Your task to perform on an android device: turn vacation reply on in the gmail app Image 0: 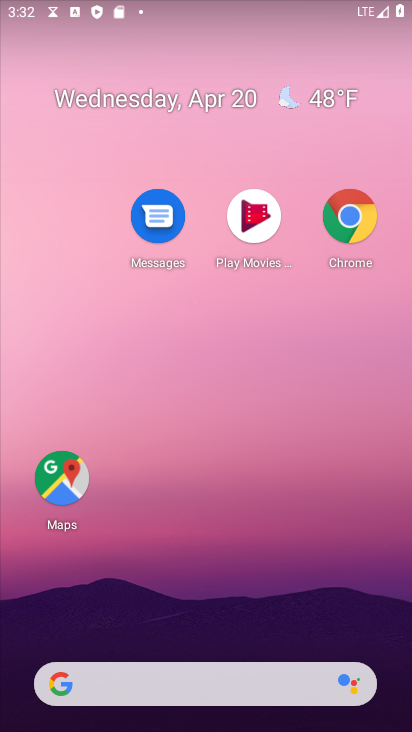
Step 0: drag from (273, 605) to (261, 118)
Your task to perform on an android device: turn vacation reply on in the gmail app Image 1: 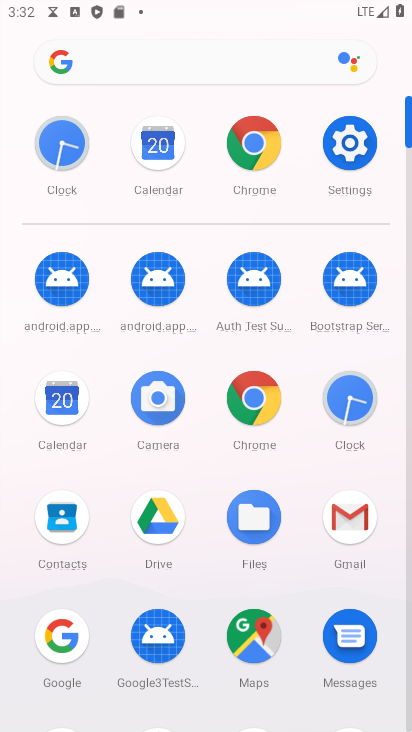
Step 1: click (352, 525)
Your task to perform on an android device: turn vacation reply on in the gmail app Image 2: 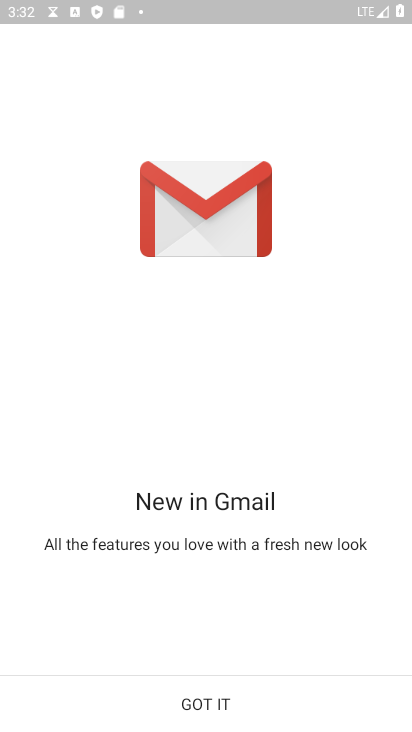
Step 2: click (232, 710)
Your task to perform on an android device: turn vacation reply on in the gmail app Image 3: 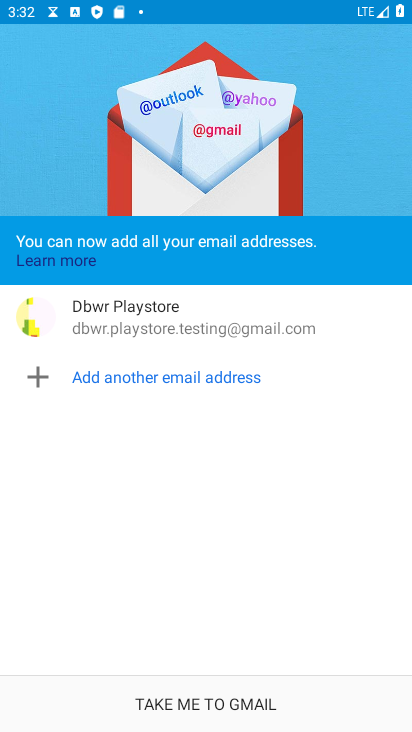
Step 3: click (232, 703)
Your task to perform on an android device: turn vacation reply on in the gmail app Image 4: 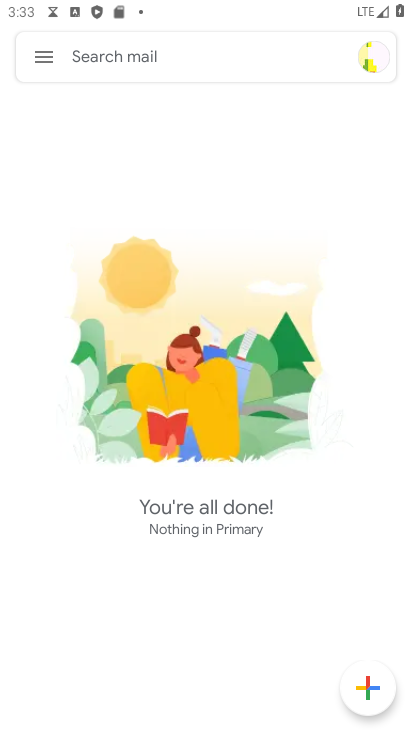
Step 4: click (40, 73)
Your task to perform on an android device: turn vacation reply on in the gmail app Image 5: 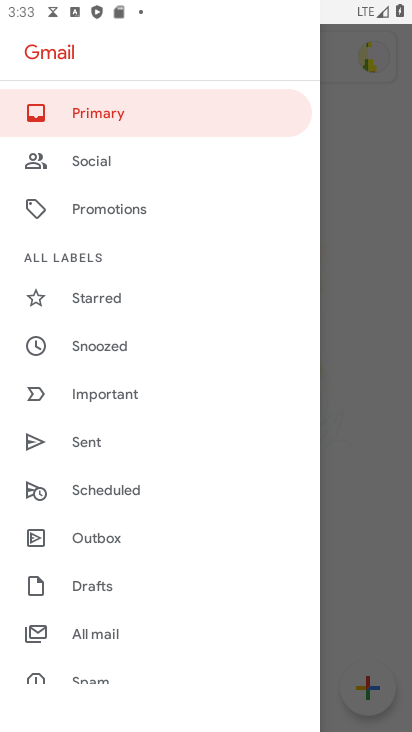
Step 5: drag from (134, 604) to (167, 415)
Your task to perform on an android device: turn vacation reply on in the gmail app Image 6: 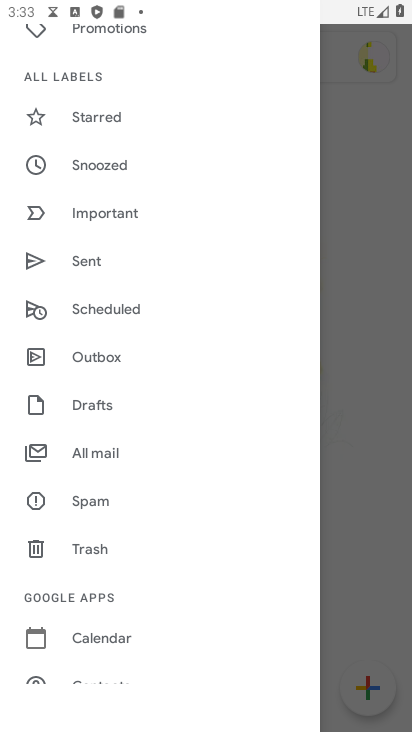
Step 6: drag from (139, 624) to (153, 332)
Your task to perform on an android device: turn vacation reply on in the gmail app Image 7: 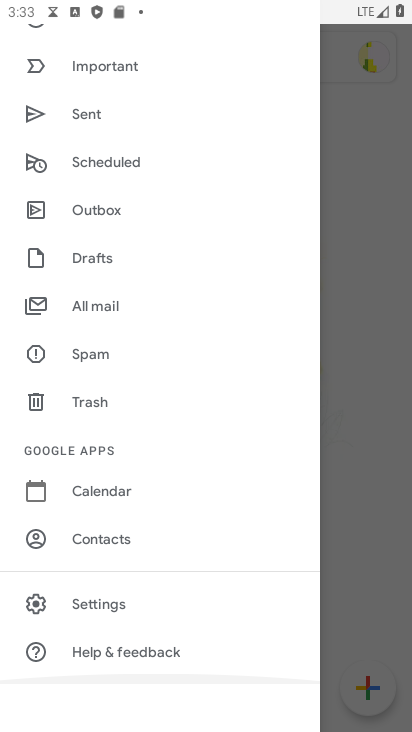
Step 7: click (117, 611)
Your task to perform on an android device: turn vacation reply on in the gmail app Image 8: 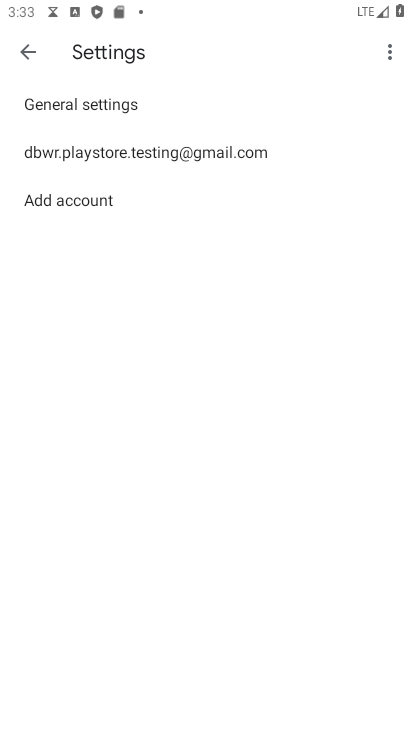
Step 8: click (196, 158)
Your task to perform on an android device: turn vacation reply on in the gmail app Image 9: 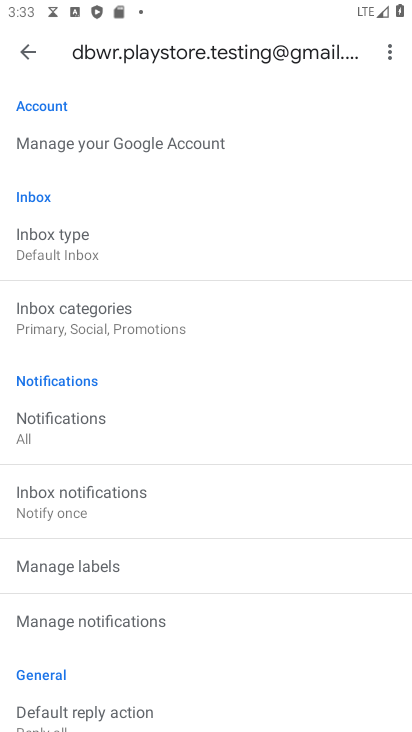
Step 9: drag from (150, 572) to (186, 247)
Your task to perform on an android device: turn vacation reply on in the gmail app Image 10: 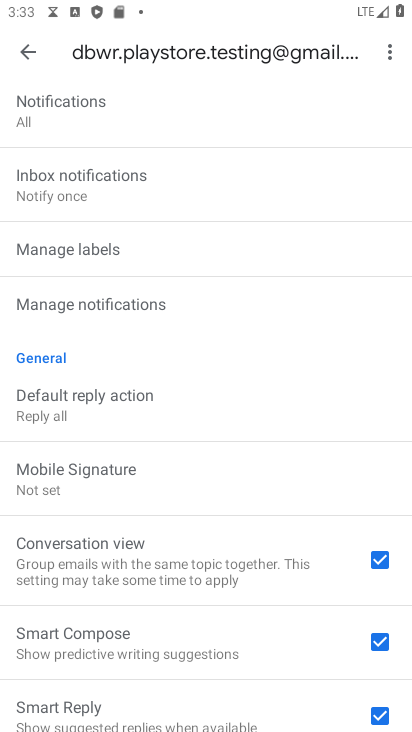
Step 10: drag from (195, 552) to (197, 287)
Your task to perform on an android device: turn vacation reply on in the gmail app Image 11: 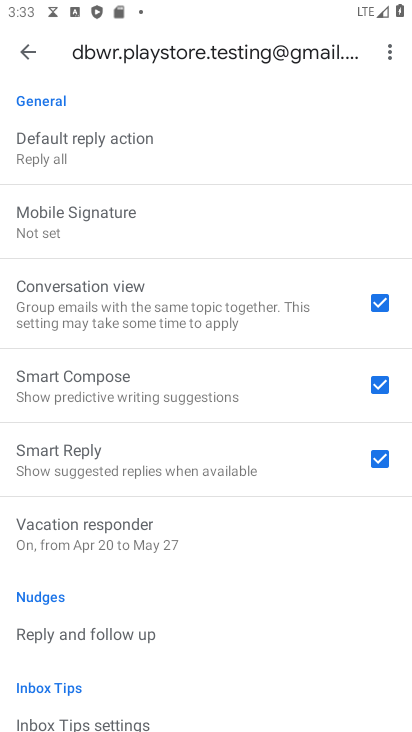
Step 11: click (116, 542)
Your task to perform on an android device: turn vacation reply on in the gmail app Image 12: 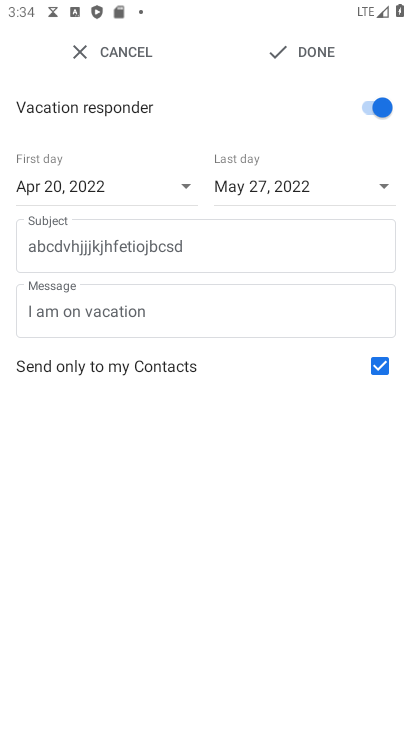
Step 12: click (328, 54)
Your task to perform on an android device: turn vacation reply on in the gmail app Image 13: 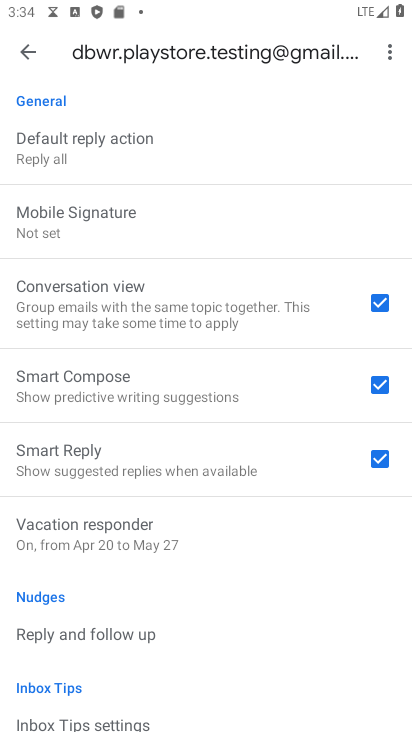
Step 13: task complete